Your task to perform on an android device: Go to Android settings Image 0: 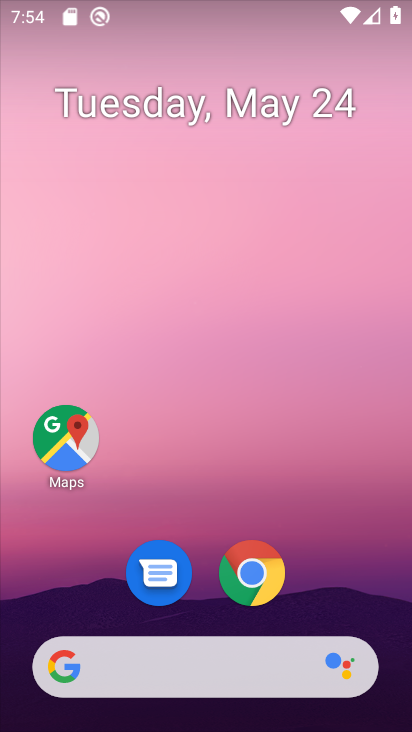
Step 0: drag from (331, 584) to (179, 91)
Your task to perform on an android device: Go to Android settings Image 1: 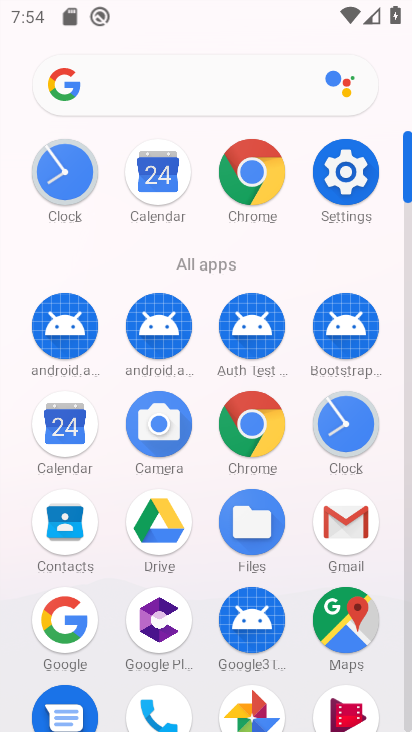
Step 1: click (334, 180)
Your task to perform on an android device: Go to Android settings Image 2: 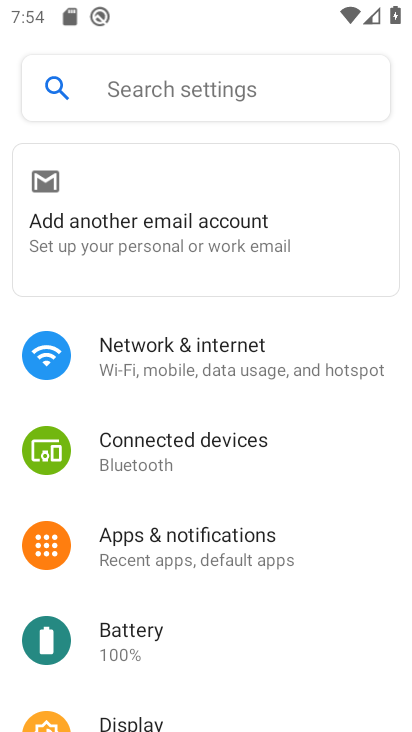
Step 2: task complete